Your task to perform on an android device: Open calendar and show me the third week of next month Image 0: 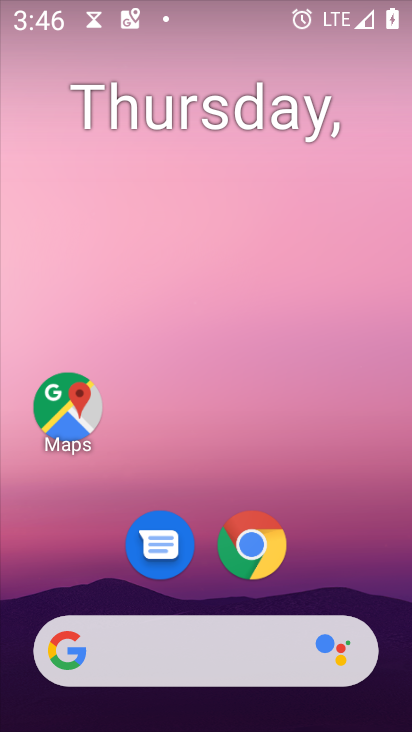
Step 0: drag from (328, 504) to (261, 0)
Your task to perform on an android device: Open calendar and show me the third week of next month Image 1: 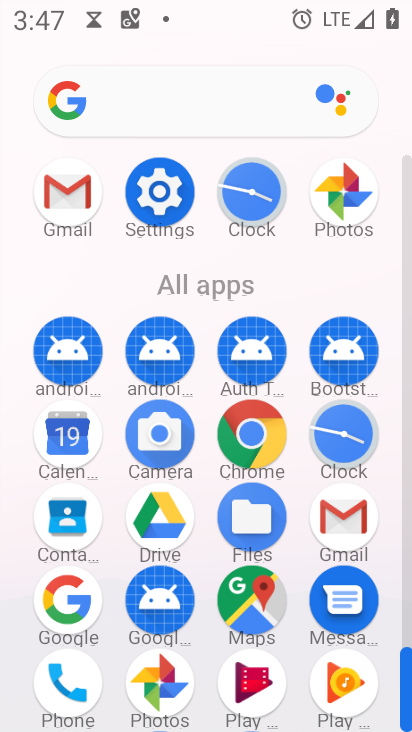
Step 1: click (56, 427)
Your task to perform on an android device: Open calendar and show me the third week of next month Image 2: 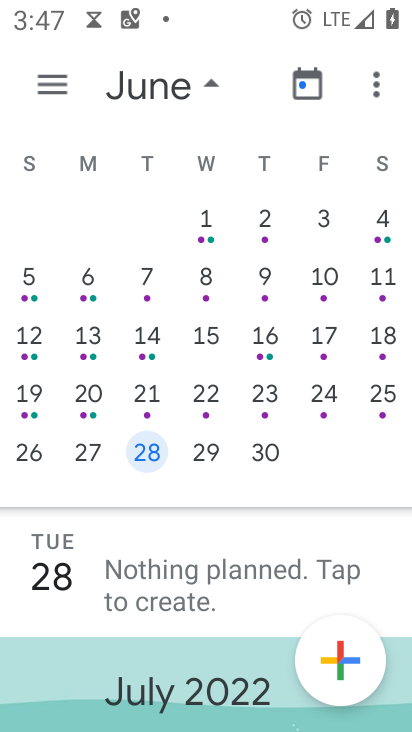
Step 2: drag from (298, 372) to (20, 610)
Your task to perform on an android device: Open calendar and show me the third week of next month Image 3: 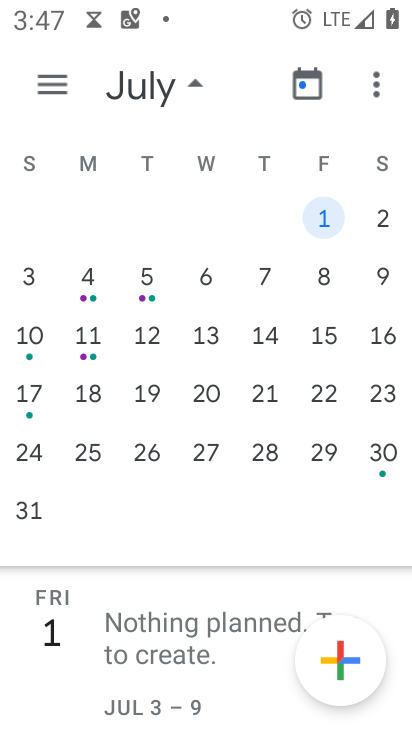
Step 3: click (262, 406)
Your task to perform on an android device: Open calendar and show me the third week of next month Image 4: 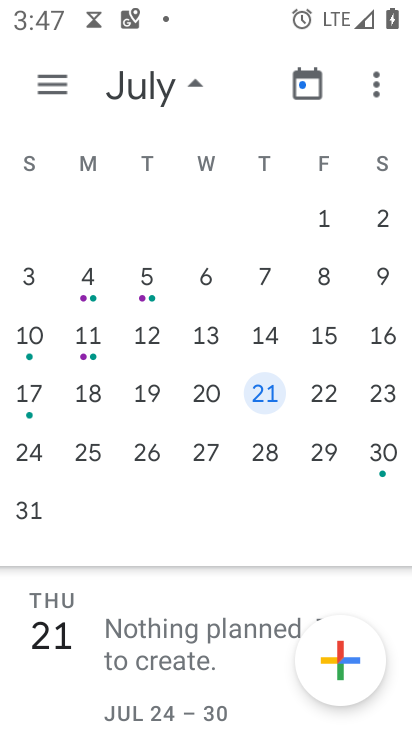
Step 4: task complete